Your task to perform on an android device: make emails show in primary in the gmail app Image 0: 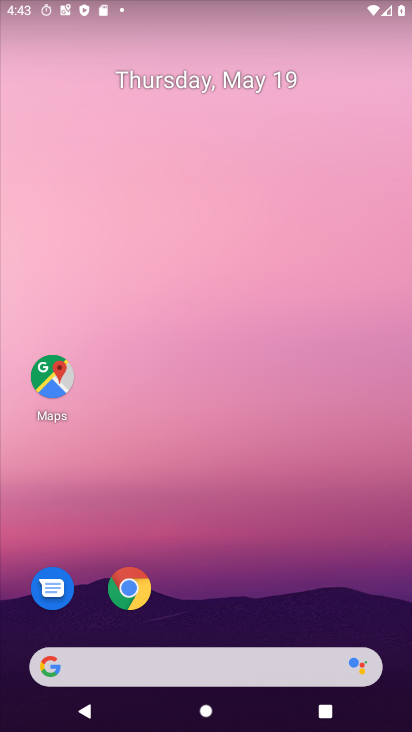
Step 0: drag from (224, 595) to (277, 129)
Your task to perform on an android device: make emails show in primary in the gmail app Image 1: 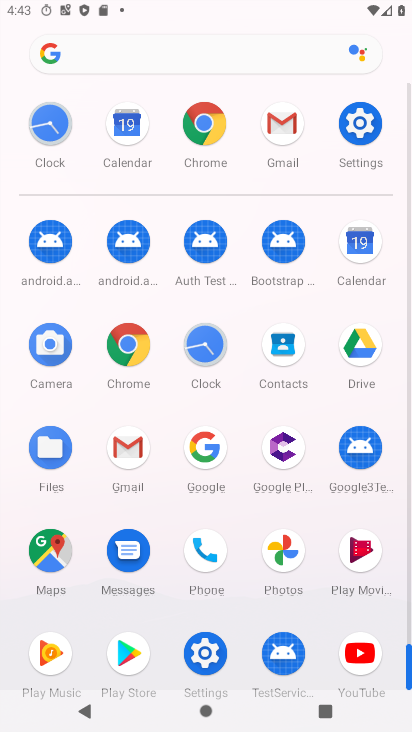
Step 1: click (125, 457)
Your task to perform on an android device: make emails show in primary in the gmail app Image 2: 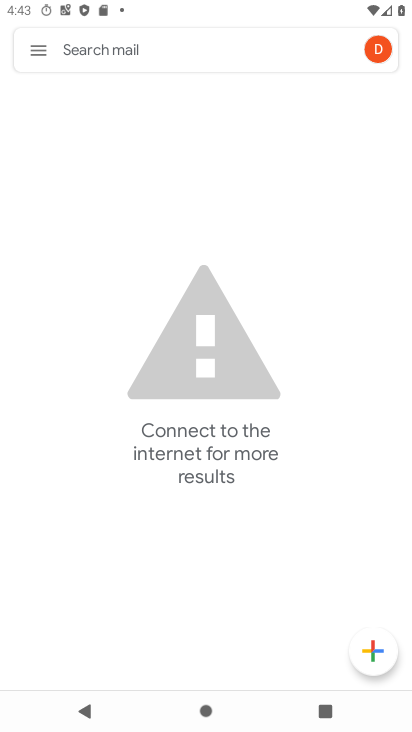
Step 2: click (45, 46)
Your task to perform on an android device: make emails show in primary in the gmail app Image 3: 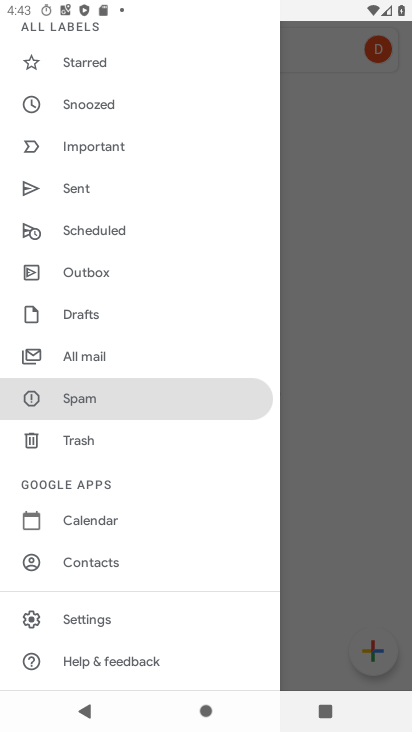
Step 3: click (92, 624)
Your task to perform on an android device: make emails show in primary in the gmail app Image 4: 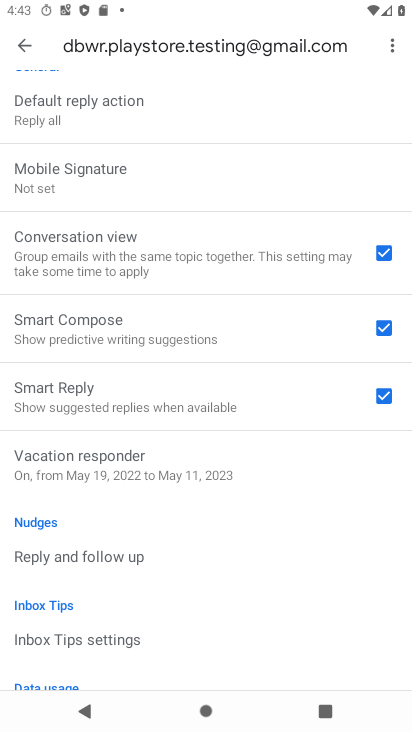
Step 4: drag from (86, 192) to (82, 584)
Your task to perform on an android device: make emails show in primary in the gmail app Image 5: 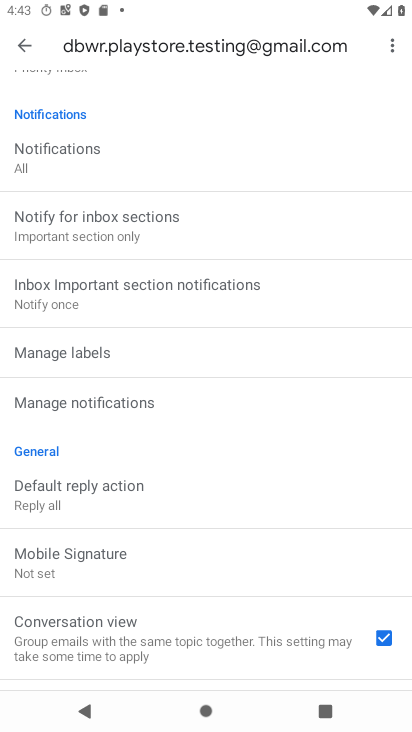
Step 5: drag from (125, 258) to (116, 718)
Your task to perform on an android device: make emails show in primary in the gmail app Image 6: 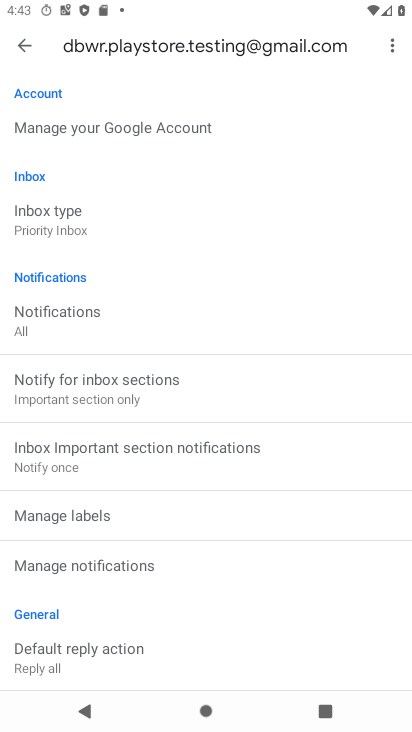
Step 6: click (69, 224)
Your task to perform on an android device: make emails show in primary in the gmail app Image 7: 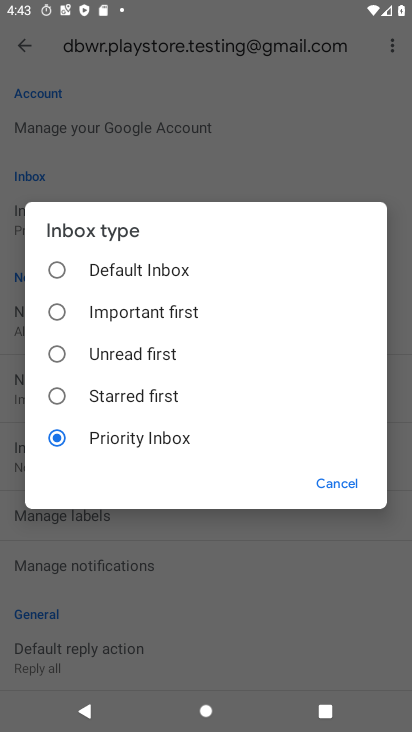
Step 7: click (136, 251)
Your task to perform on an android device: make emails show in primary in the gmail app Image 8: 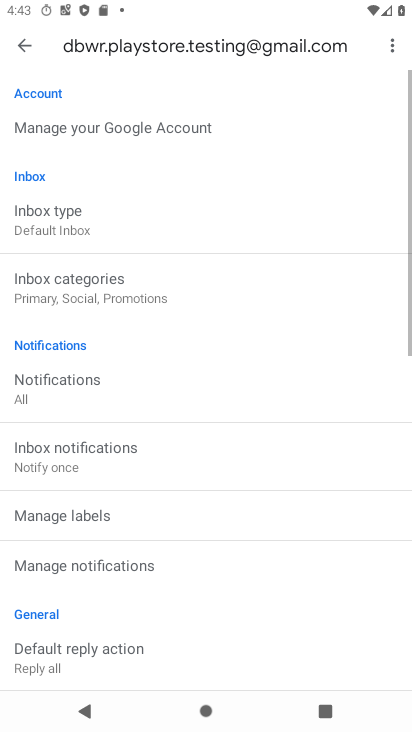
Step 8: click (114, 296)
Your task to perform on an android device: make emails show in primary in the gmail app Image 9: 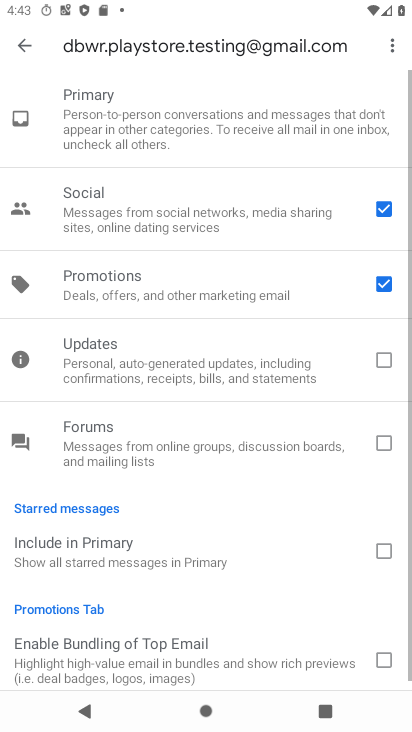
Step 9: click (374, 209)
Your task to perform on an android device: make emails show in primary in the gmail app Image 10: 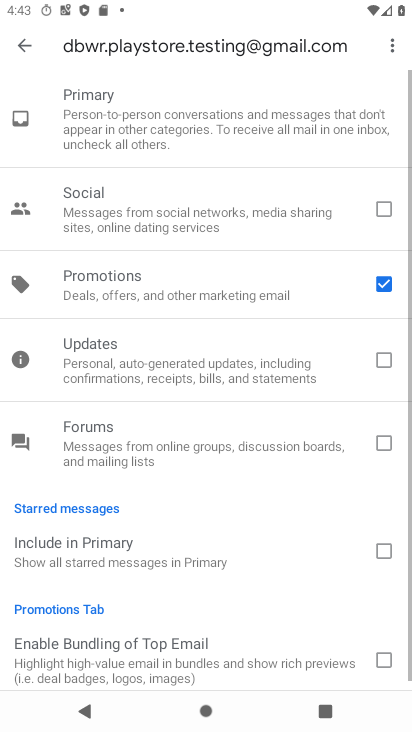
Step 10: click (385, 290)
Your task to perform on an android device: make emails show in primary in the gmail app Image 11: 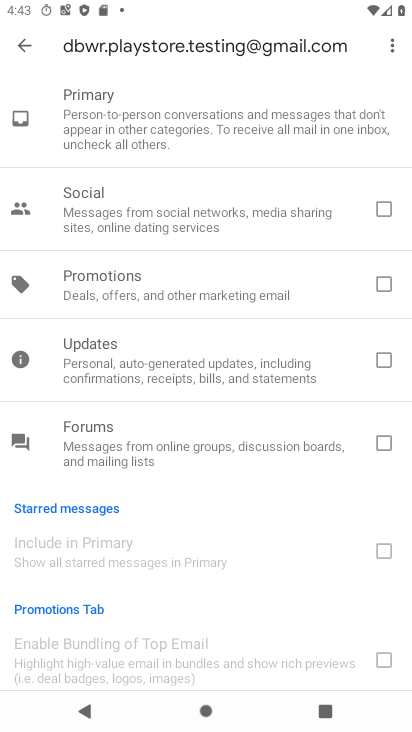
Step 11: task complete